Your task to perform on an android device: Open the phone app and click the voicemail tab. Image 0: 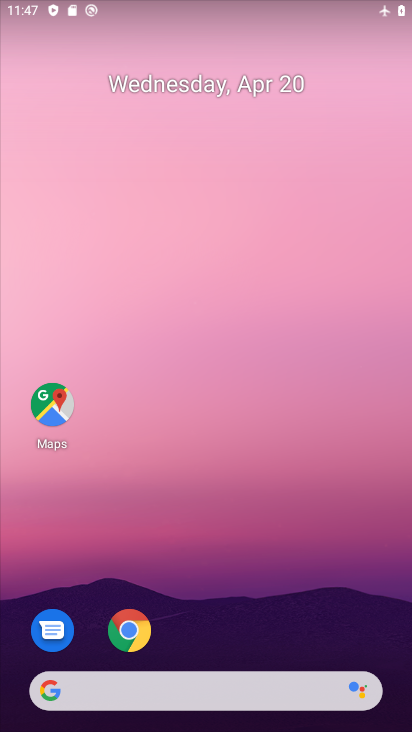
Step 0: drag from (390, 410) to (391, 71)
Your task to perform on an android device: Open the phone app and click the voicemail tab. Image 1: 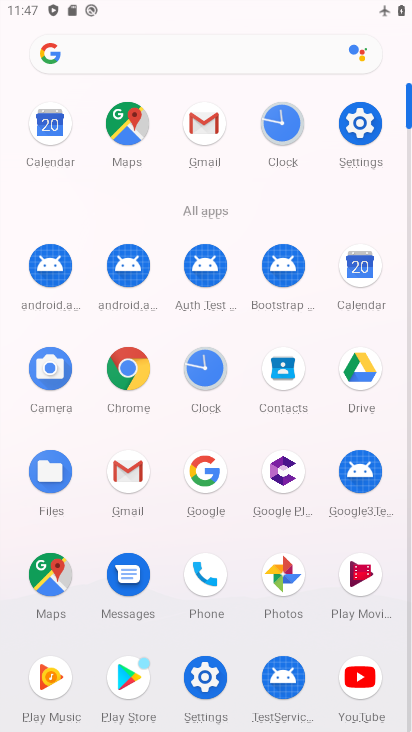
Step 1: click (216, 573)
Your task to perform on an android device: Open the phone app and click the voicemail tab. Image 2: 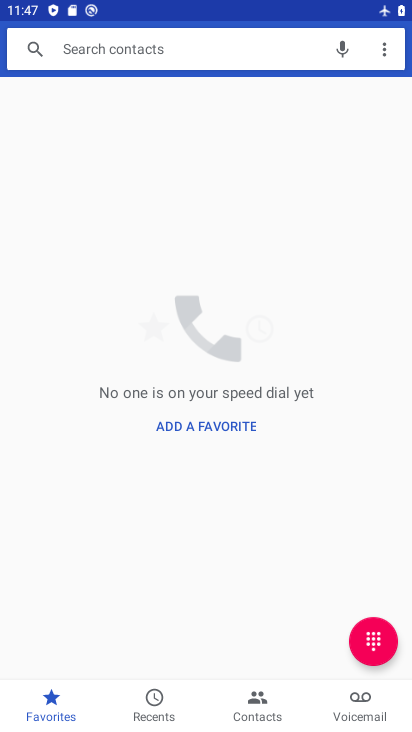
Step 2: click (358, 719)
Your task to perform on an android device: Open the phone app and click the voicemail tab. Image 3: 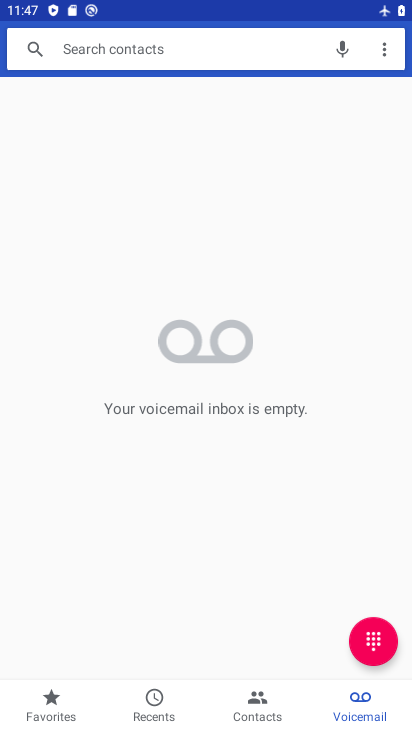
Step 3: task complete